Your task to perform on an android device: toggle sleep mode Image 0: 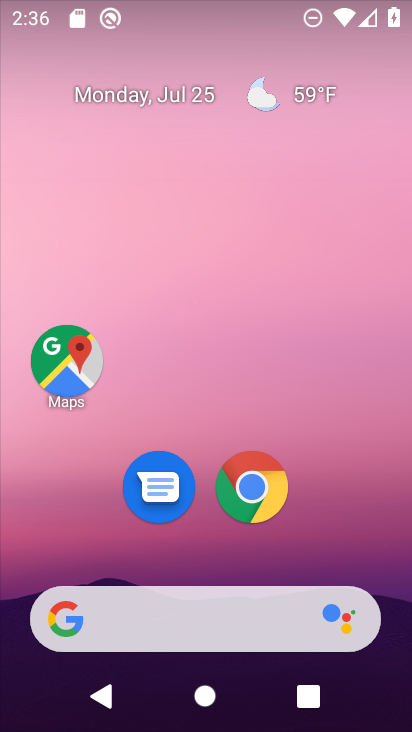
Step 0: drag from (68, 548) to (254, 27)
Your task to perform on an android device: toggle sleep mode Image 1: 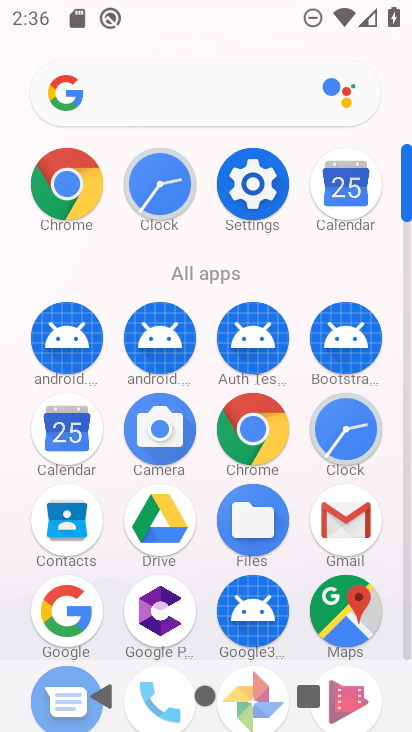
Step 1: click (259, 189)
Your task to perform on an android device: toggle sleep mode Image 2: 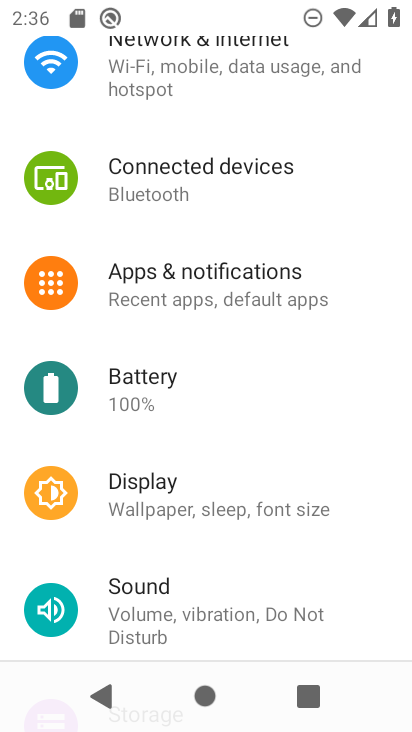
Step 2: drag from (210, 108) to (381, 457)
Your task to perform on an android device: toggle sleep mode Image 3: 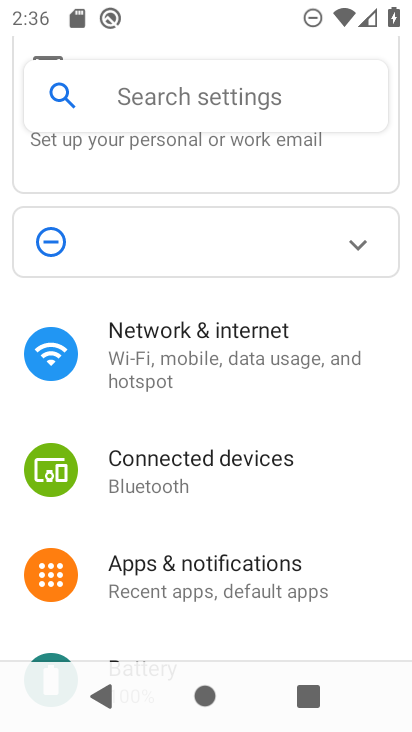
Step 3: click (187, 92)
Your task to perform on an android device: toggle sleep mode Image 4: 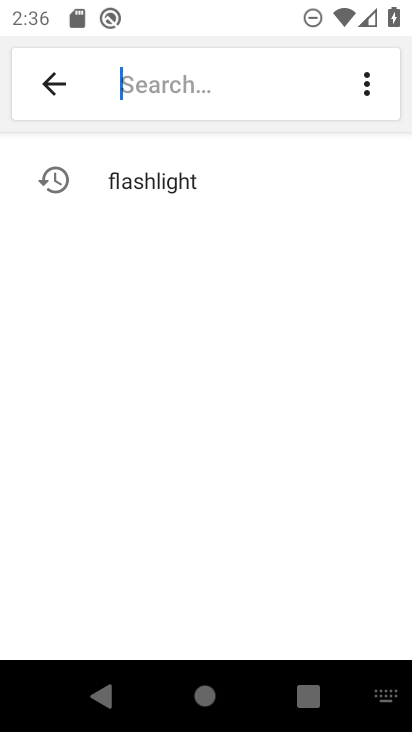
Step 4: type "sleep mode"
Your task to perform on an android device: toggle sleep mode Image 5: 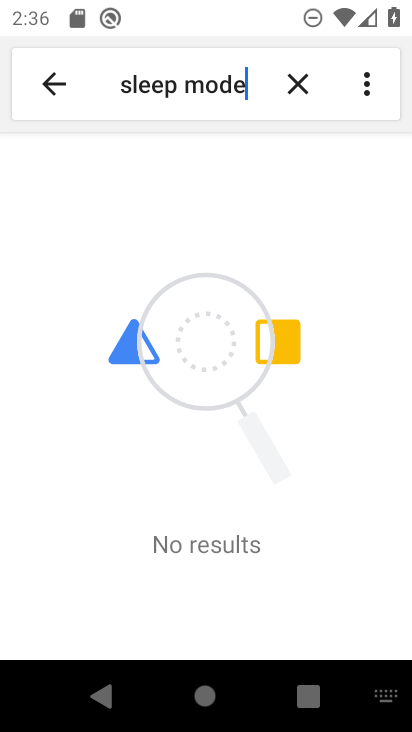
Step 5: task complete